Your task to perform on an android device: find which apps use the phone's location Image 0: 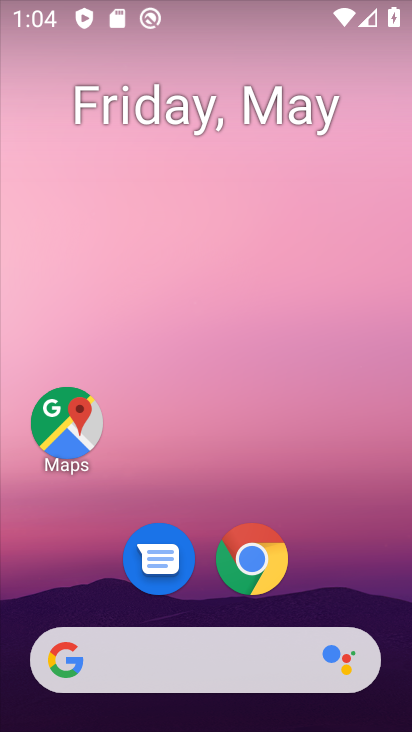
Step 0: drag from (338, 596) to (318, 250)
Your task to perform on an android device: find which apps use the phone's location Image 1: 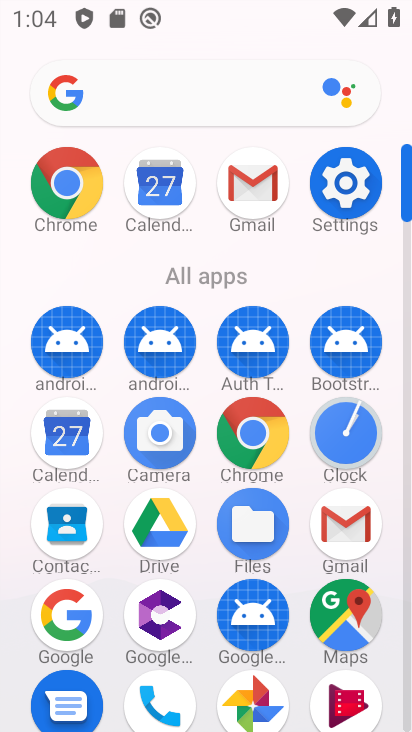
Step 1: drag from (210, 725) to (197, 426)
Your task to perform on an android device: find which apps use the phone's location Image 2: 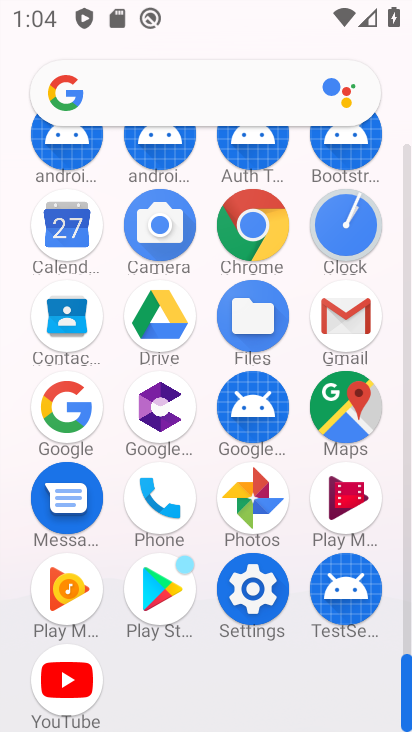
Step 2: click (244, 584)
Your task to perform on an android device: find which apps use the phone's location Image 3: 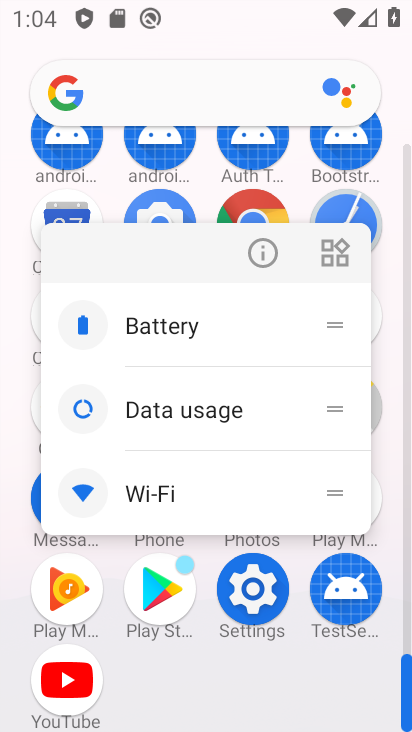
Step 3: click (246, 609)
Your task to perform on an android device: find which apps use the phone's location Image 4: 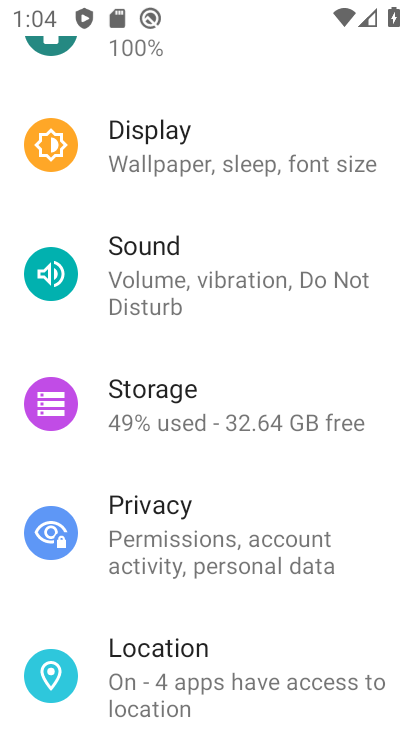
Step 4: click (227, 664)
Your task to perform on an android device: find which apps use the phone's location Image 5: 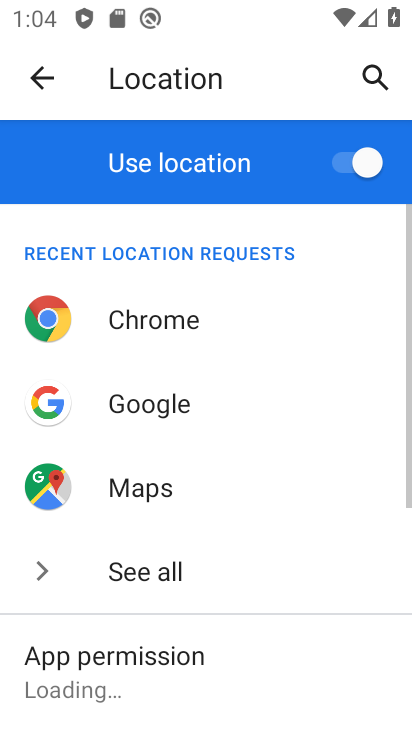
Step 5: drag from (233, 656) to (224, 375)
Your task to perform on an android device: find which apps use the phone's location Image 6: 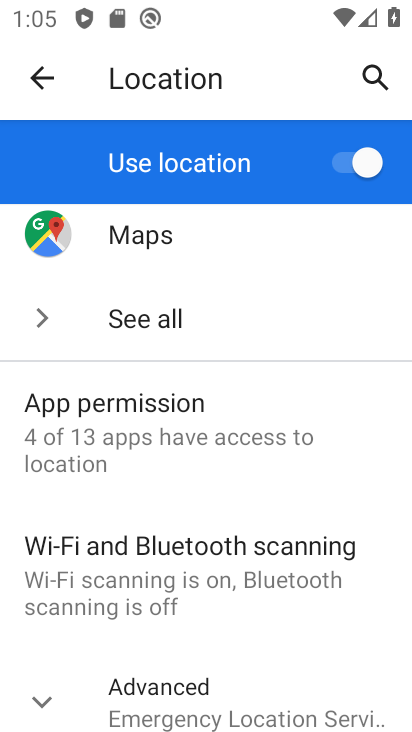
Step 6: drag from (297, 614) to (281, 327)
Your task to perform on an android device: find which apps use the phone's location Image 7: 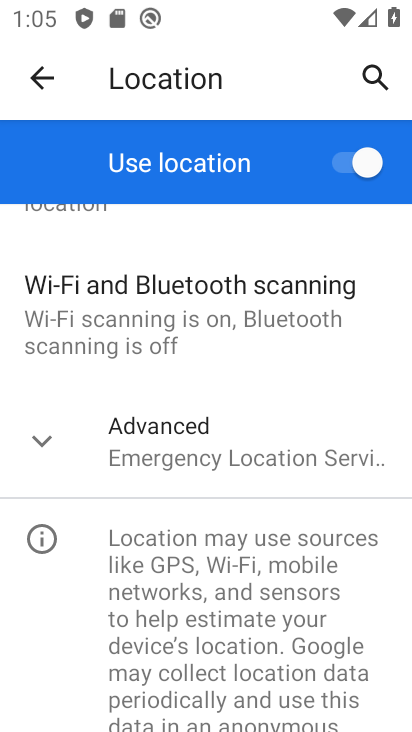
Step 7: click (151, 476)
Your task to perform on an android device: find which apps use the phone's location Image 8: 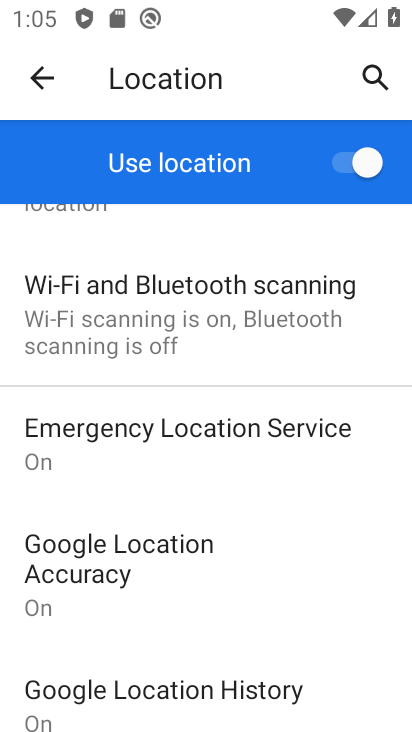
Step 8: task complete